Your task to perform on an android device: change the clock display to show seconds Image 0: 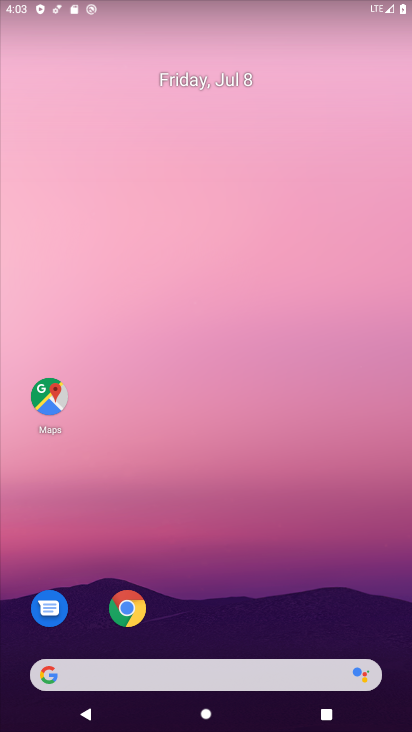
Step 0: press home button
Your task to perform on an android device: change the clock display to show seconds Image 1: 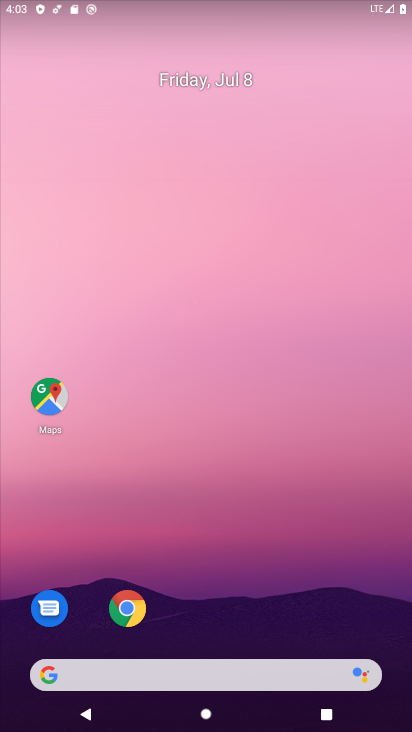
Step 1: drag from (225, 629) to (292, 101)
Your task to perform on an android device: change the clock display to show seconds Image 2: 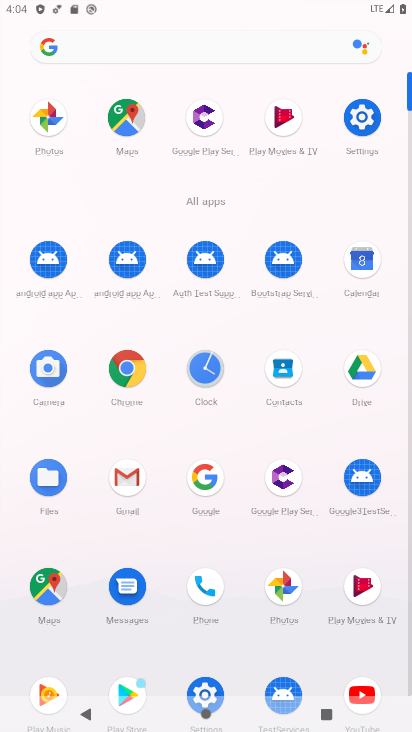
Step 2: click (203, 360)
Your task to perform on an android device: change the clock display to show seconds Image 3: 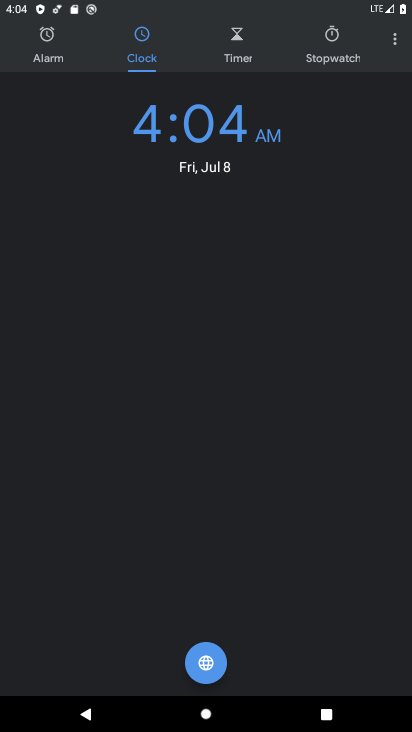
Step 3: click (397, 38)
Your task to perform on an android device: change the clock display to show seconds Image 4: 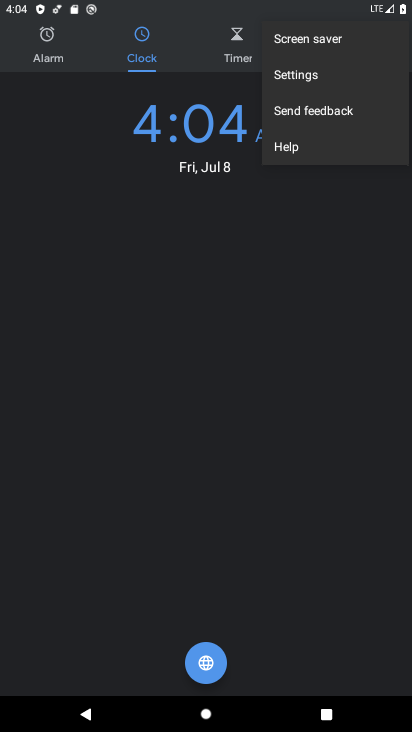
Step 4: click (311, 72)
Your task to perform on an android device: change the clock display to show seconds Image 5: 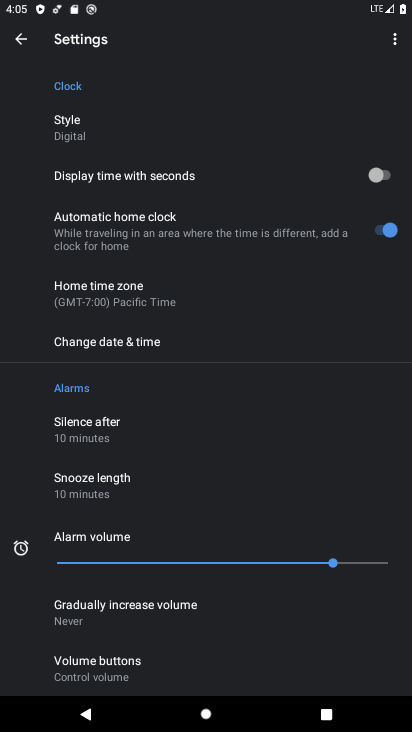
Step 5: click (375, 173)
Your task to perform on an android device: change the clock display to show seconds Image 6: 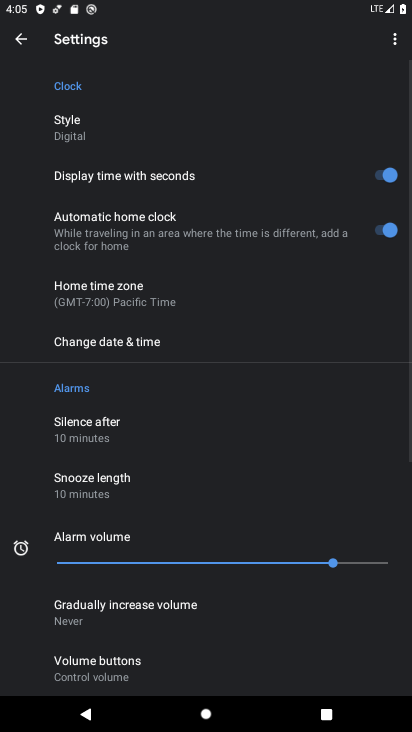
Step 6: task complete